Your task to perform on an android device: change the clock style Image 0: 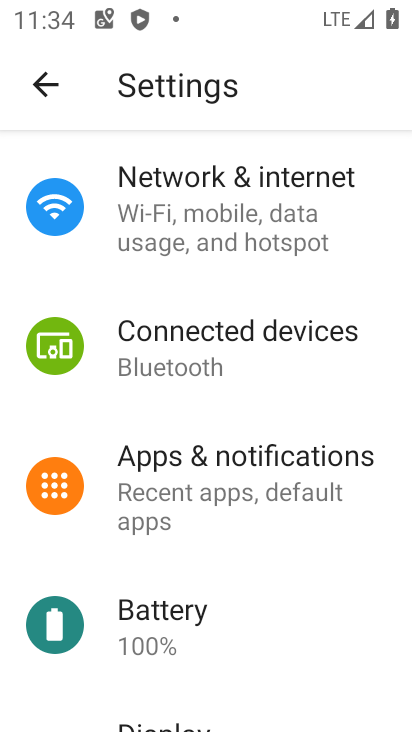
Step 0: press home button
Your task to perform on an android device: change the clock style Image 1: 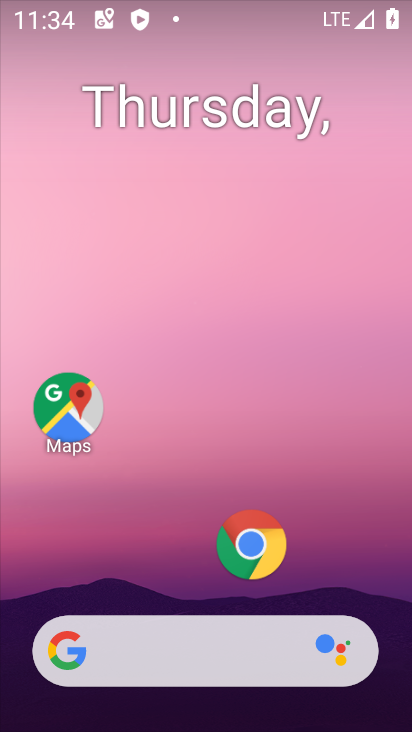
Step 1: drag from (173, 558) to (222, 8)
Your task to perform on an android device: change the clock style Image 2: 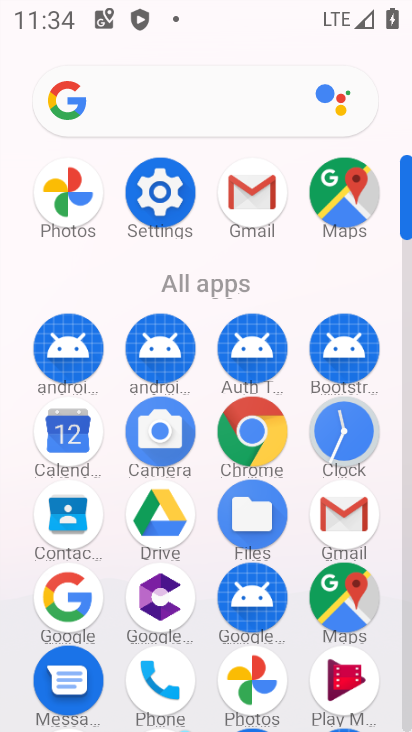
Step 2: click (331, 433)
Your task to perform on an android device: change the clock style Image 3: 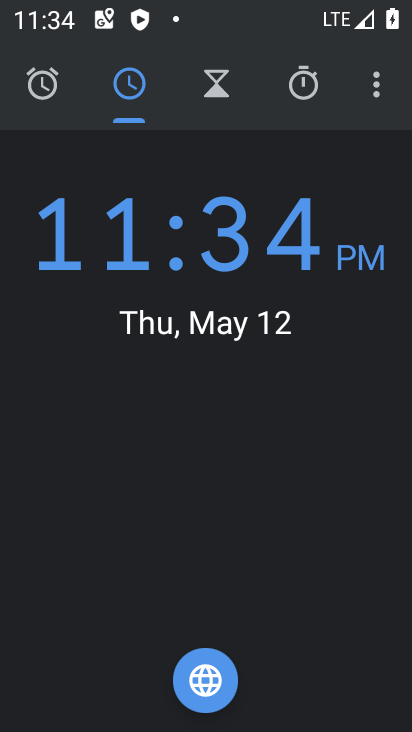
Step 3: click (380, 85)
Your task to perform on an android device: change the clock style Image 4: 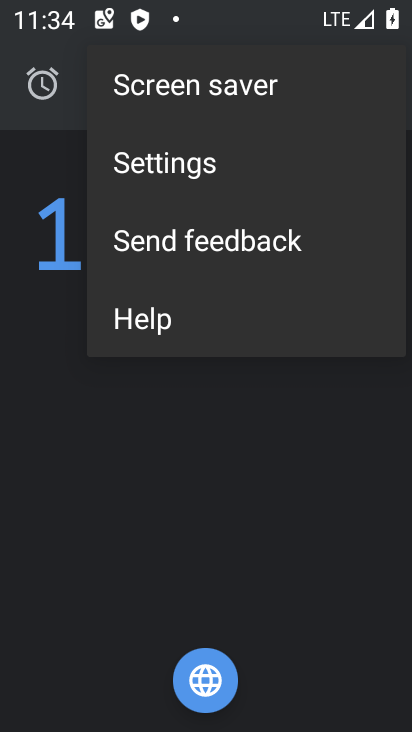
Step 4: click (201, 170)
Your task to perform on an android device: change the clock style Image 5: 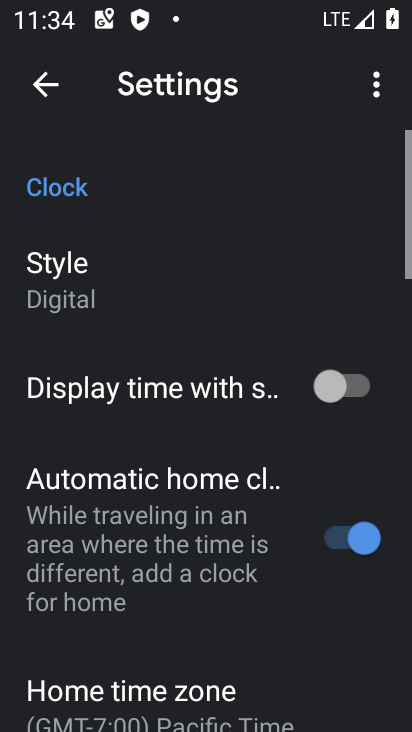
Step 5: click (102, 284)
Your task to perform on an android device: change the clock style Image 6: 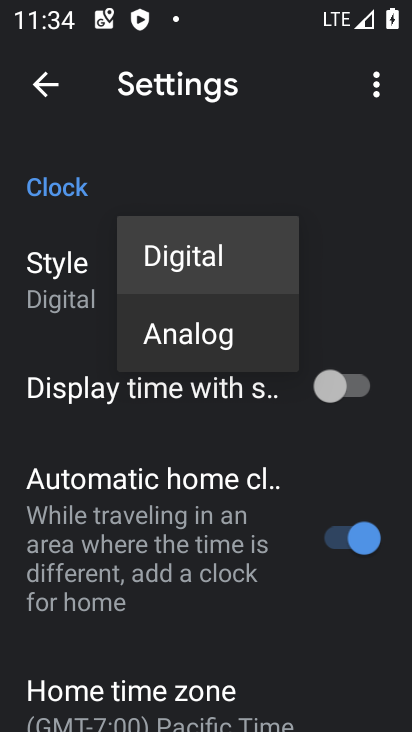
Step 6: click (183, 342)
Your task to perform on an android device: change the clock style Image 7: 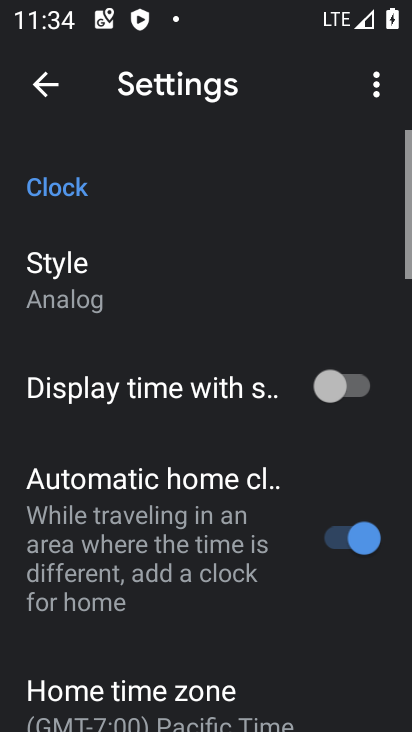
Step 7: task complete